Your task to perform on an android device: open a bookmark in the chrome app Image 0: 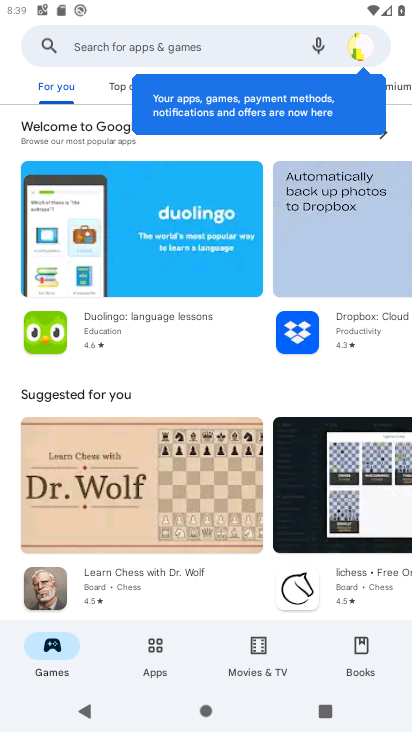
Step 0: press home button
Your task to perform on an android device: open a bookmark in the chrome app Image 1: 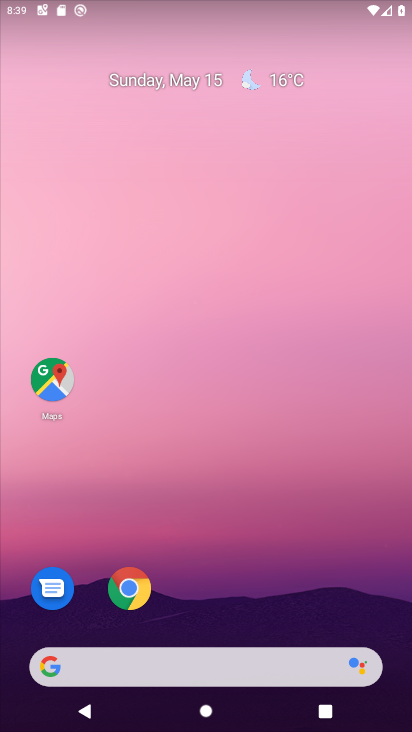
Step 1: click (132, 598)
Your task to perform on an android device: open a bookmark in the chrome app Image 2: 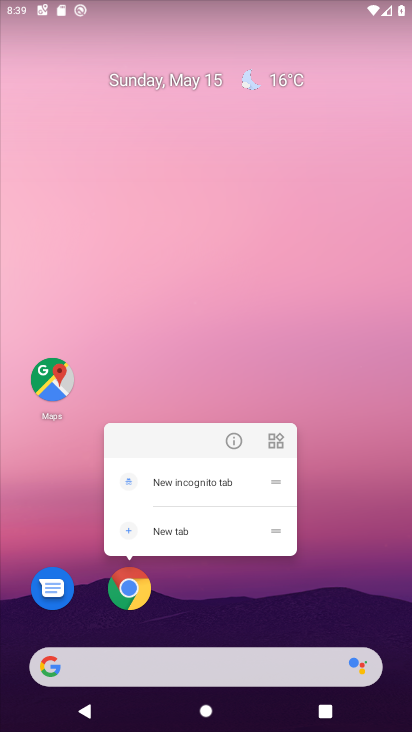
Step 2: click (118, 592)
Your task to perform on an android device: open a bookmark in the chrome app Image 3: 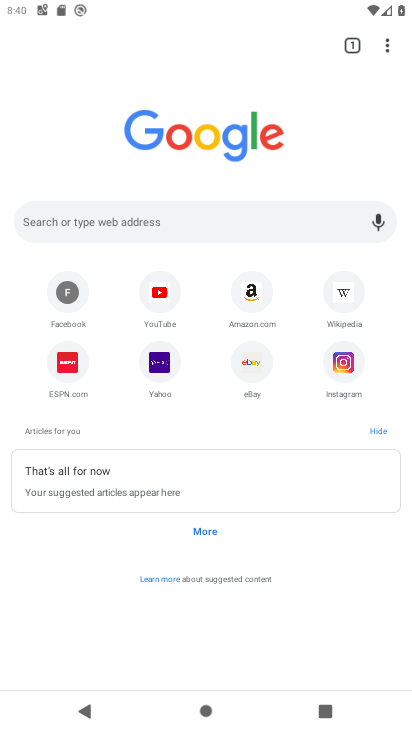
Step 3: drag from (383, 46) to (265, 174)
Your task to perform on an android device: open a bookmark in the chrome app Image 4: 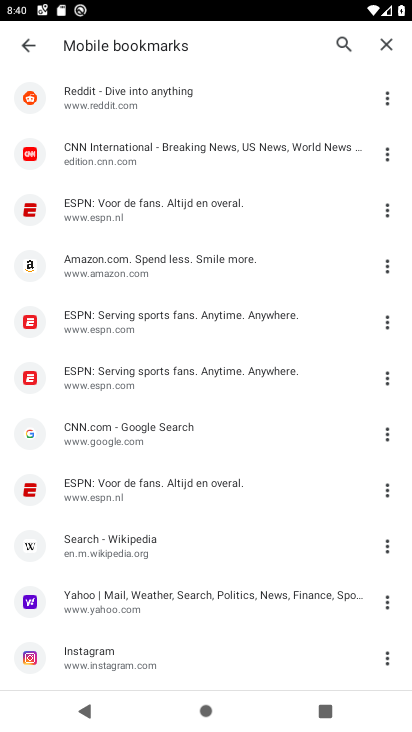
Step 4: click (155, 111)
Your task to perform on an android device: open a bookmark in the chrome app Image 5: 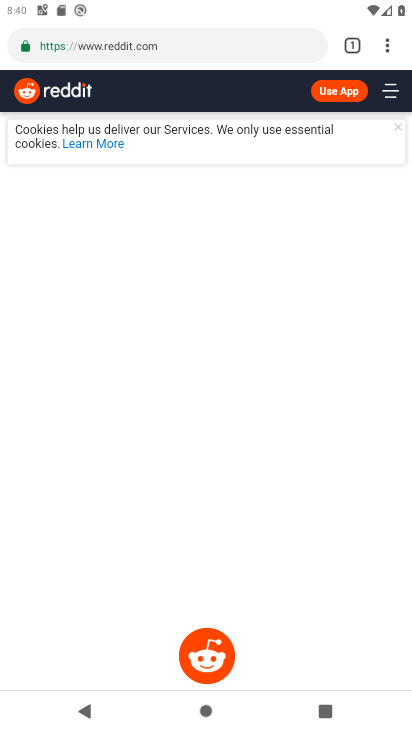
Step 5: task complete